Your task to perform on an android device: empty trash in the gmail app Image 0: 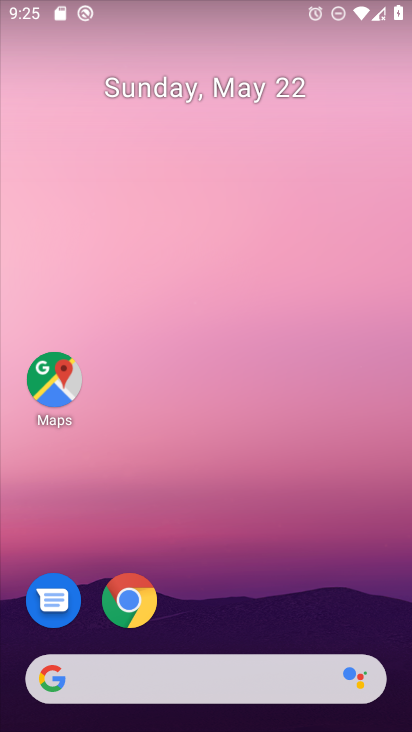
Step 0: drag from (233, 658) to (316, 188)
Your task to perform on an android device: empty trash in the gmail app Image 1: 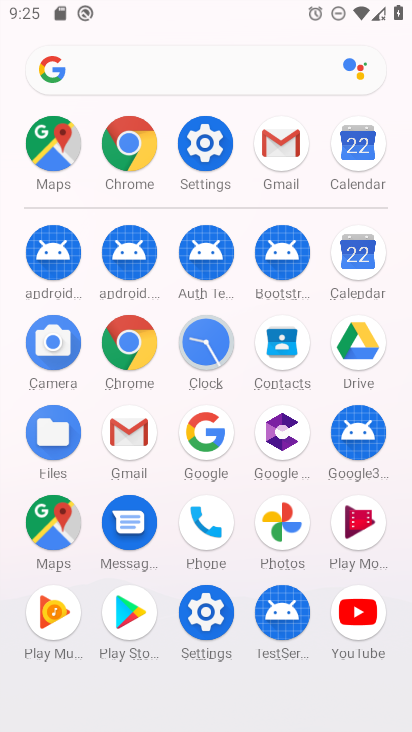
Step 1: click (127, 455)
Your task to perform on an android device: empty trash in the gmail app Image 2: 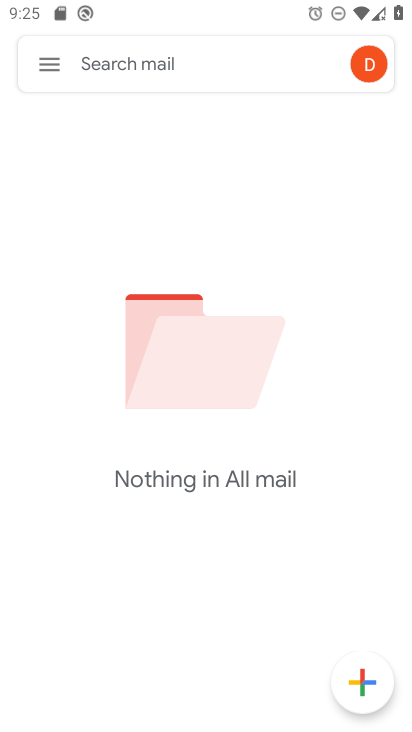
Step 2: click (45, 63)
Your task to perform on an android device: empty trash in the gmail app Image 3: 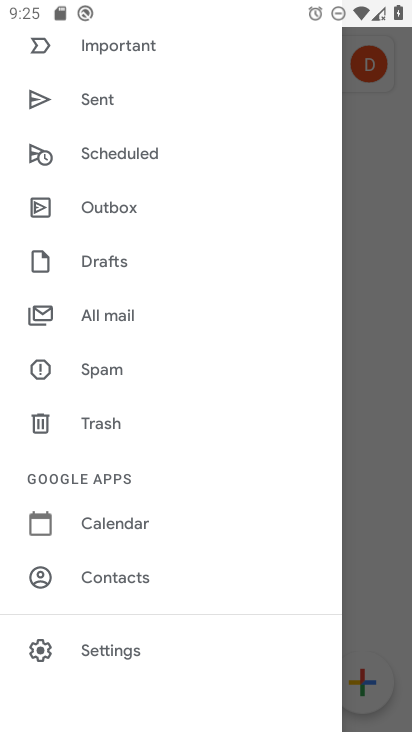
Step 3: click (113, 429)
Your task to perform on an android device: empty trash in the gmail app Image 4: 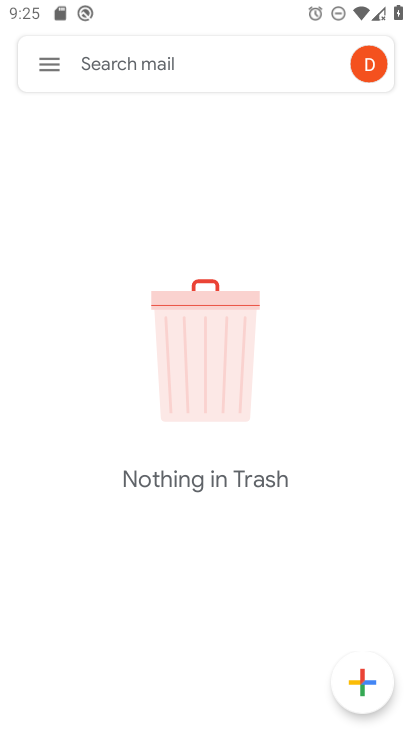
Step 4: task complete